Your task to perform on an android device: clear history in the chrome app Image 0: 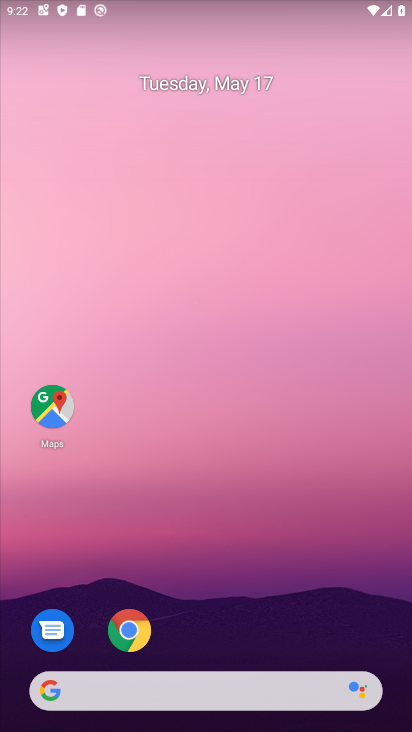
Step 0: click (136, 633)
Your task to perform on an android device: clear history in the chrome app Image 1: 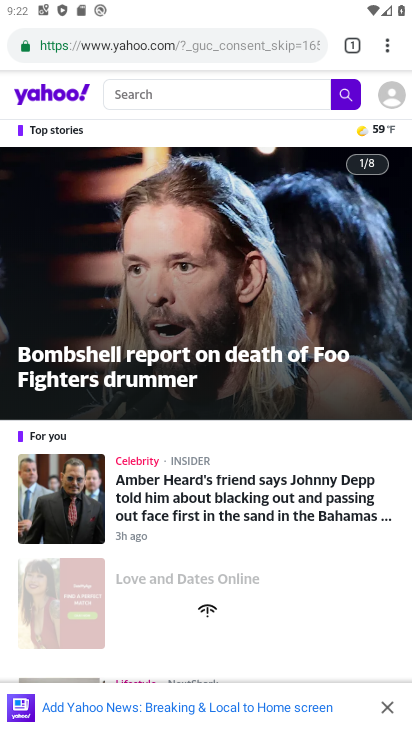
Step 1: click (394, 44)
Your task to perform on an android device: clear history in the chrome app Image 2: 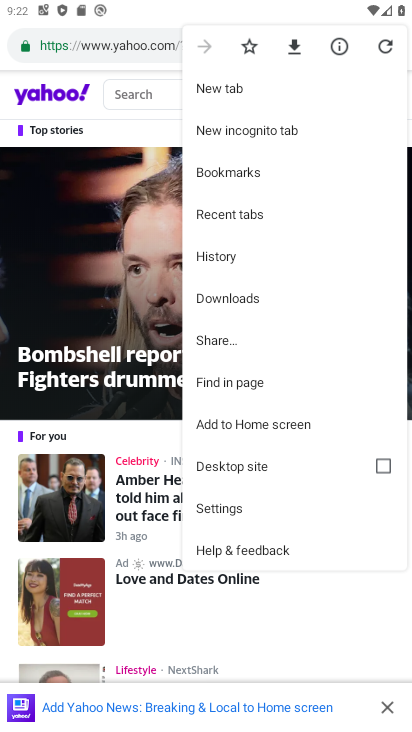
Step 2: click (230, 257)
Your task to perform on an android device: clear history in the chrome app Image 3: 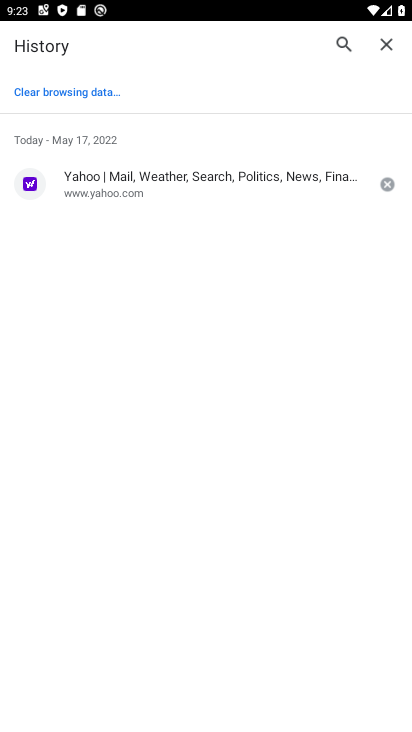
Step 3: click (101, 93)
Your task to perform on an android device: clear history in the chrome app Image 4: 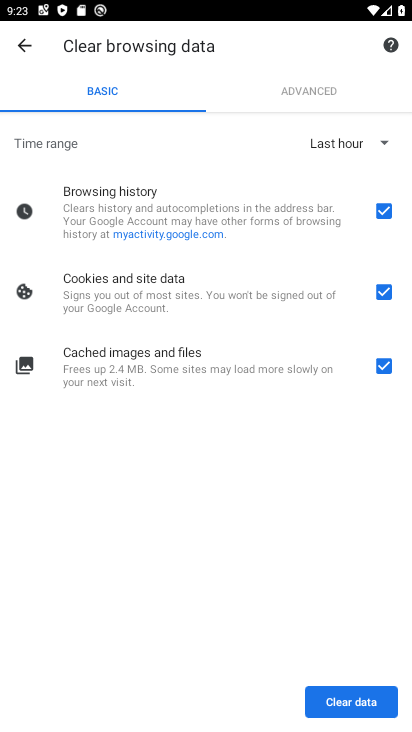
Step 4: click (343, 699)
Your task to perform on an android device: clear history in the chrome app Image 5: 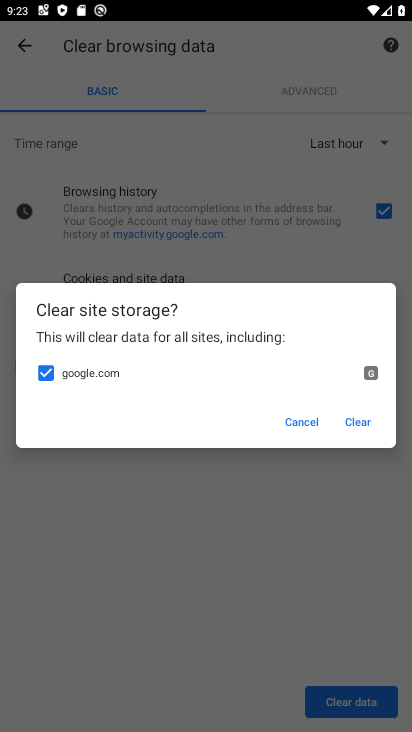
Step 5: click (354, 417)
Your task to perform on an android device: clear history in the chrome app Image 6: 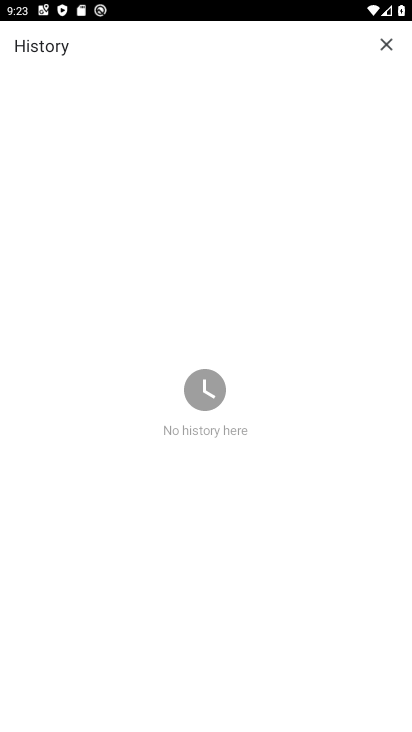
Step 6: task complete